Your task to perform on an android device: turn pop-ups off in chrome Image 0: 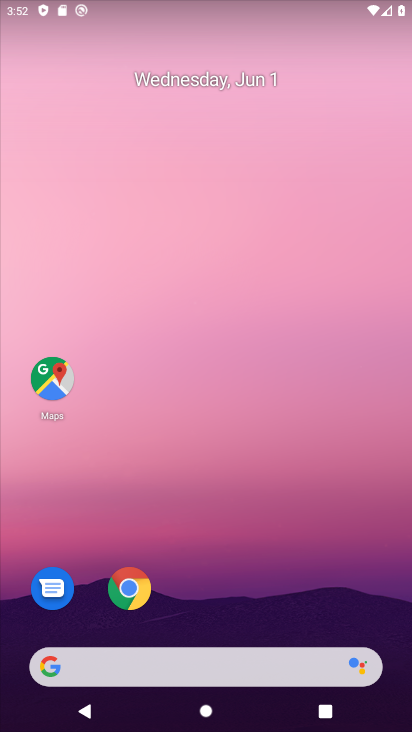
Step 0: drag from (321, 601) to (275, 257)
Your task to perform on an android device: turn pop-ups off in chrome Image 1: 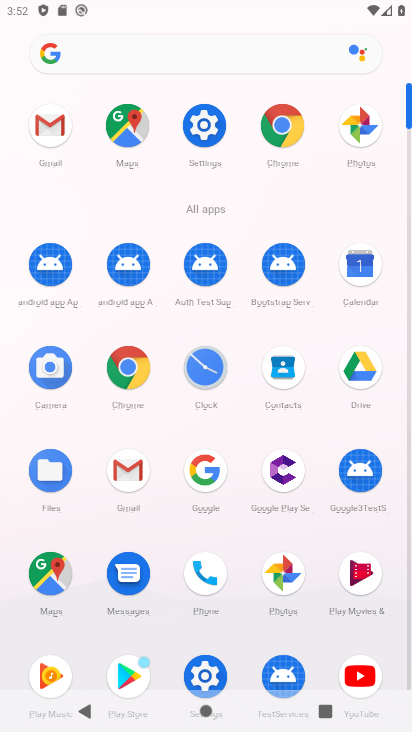
Step 1: click (288, 135)
Your task to perform on an android device: turn pop-ups off in chrome Image 2: 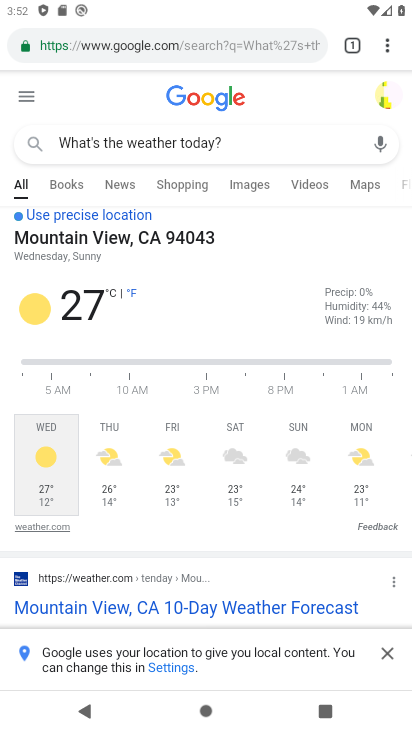
Step 2: click (385, 66)
Your task to perform on an android device: turn pop-ups off in chrome Image 3: 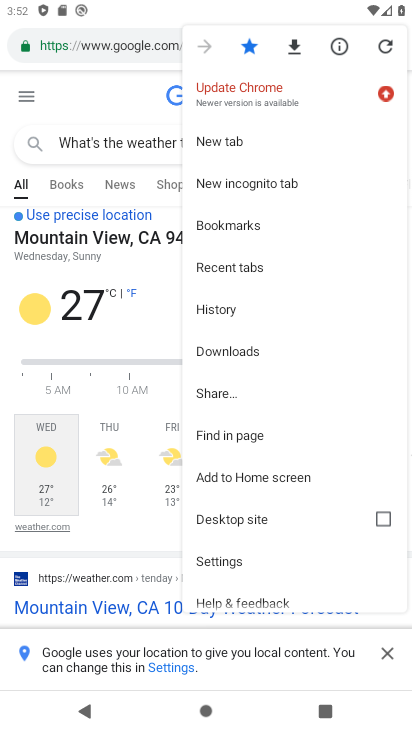
Step 3: click (193, 566)
Your task to perform on an android device: turn pop-ups off in chrome Image 4: 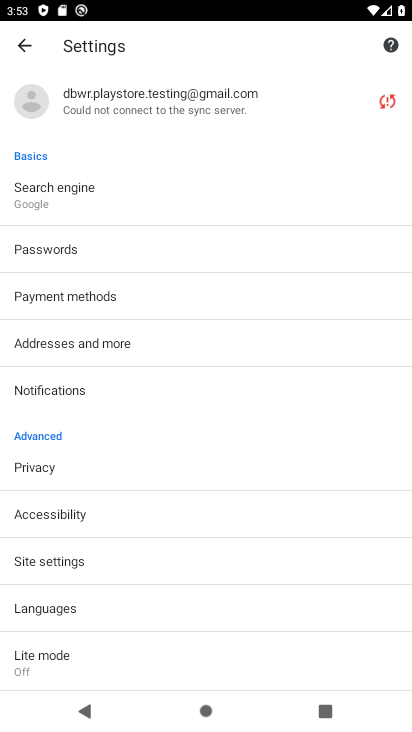
Step 4: click (173, 555)
Your task to perform on an android device: turn pop-ups off in chrome Image 5: 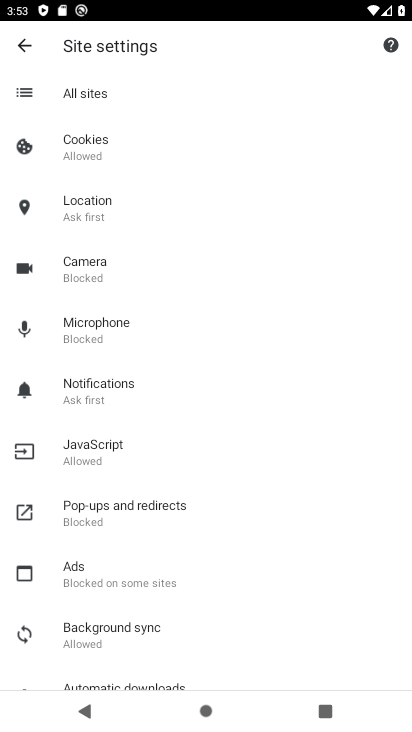
Step 5: click (173, 537)
Your task to perform on an android device: turn pop-ups off in chrome Image 6: 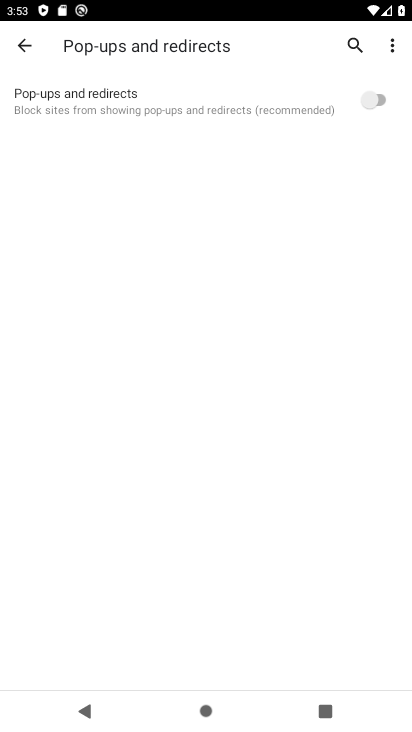
Step 6: task complete